Your task to perform on an android device: turn off translation in the chrome app Image 0: 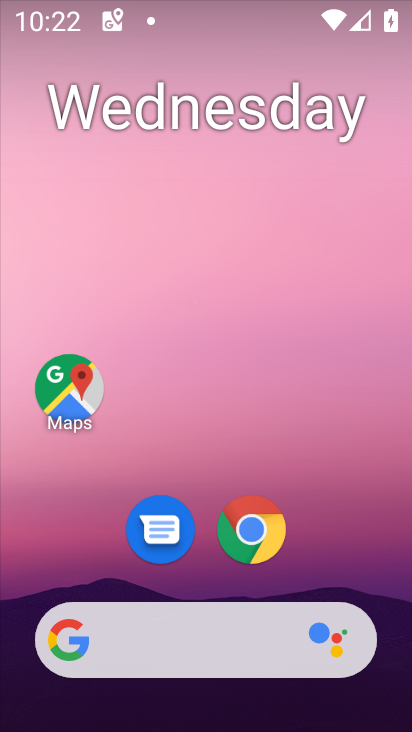
Step 0: click (250, 532)
Your task to perform on an android device: turn off translation in the chrome app Image 1: 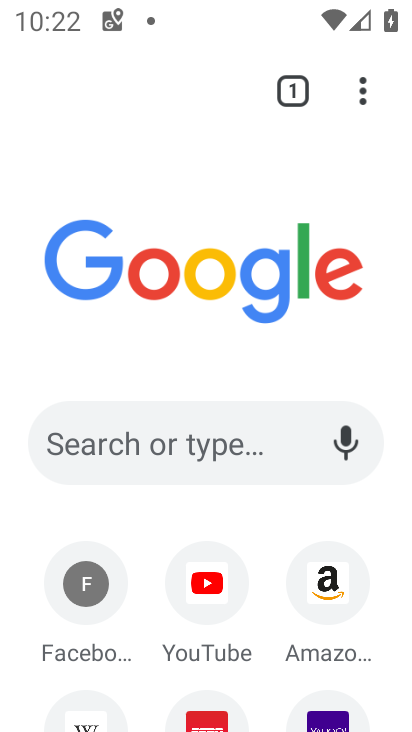
Step 1: click (361, 91)
Your task to perform on an android device: turn off translation in the chrome app Image 2: 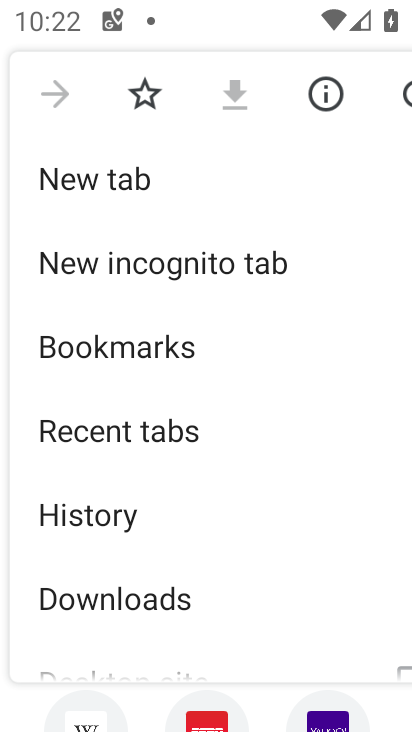
Step 2: drag from (222, 631) to (238, 347)
Your task to perform on an android device: turn off translation in the chrome app Image 3: 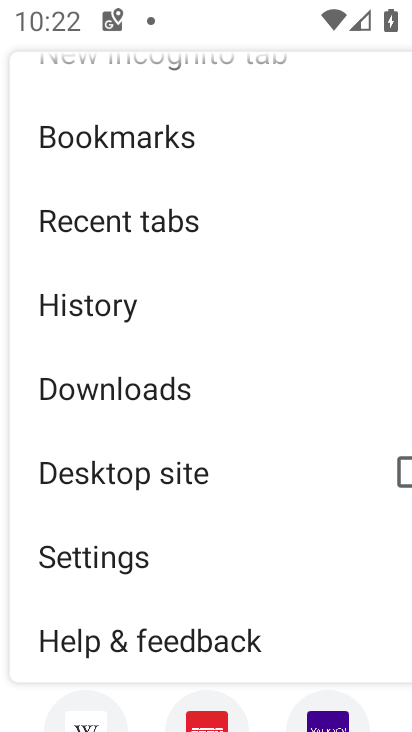
Step 3: click (124, 563)
Your task to perform on an android device: turn off translation in the chrome app Image 4: 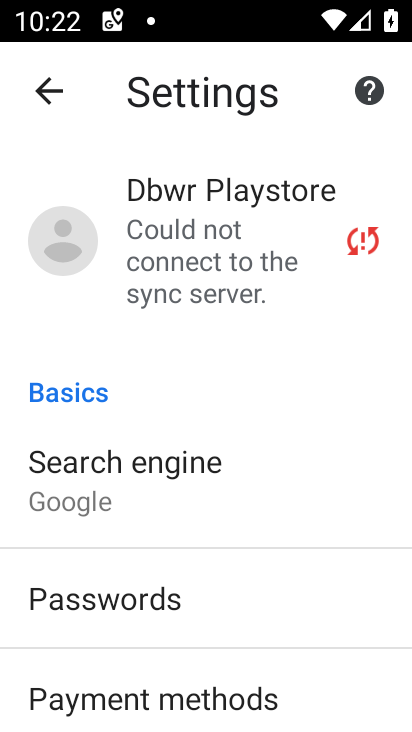
Step 4: drag from (280, 623) to (218, 287)
Your task to perform on an android device: turn off translation in the chrome app Image 5: 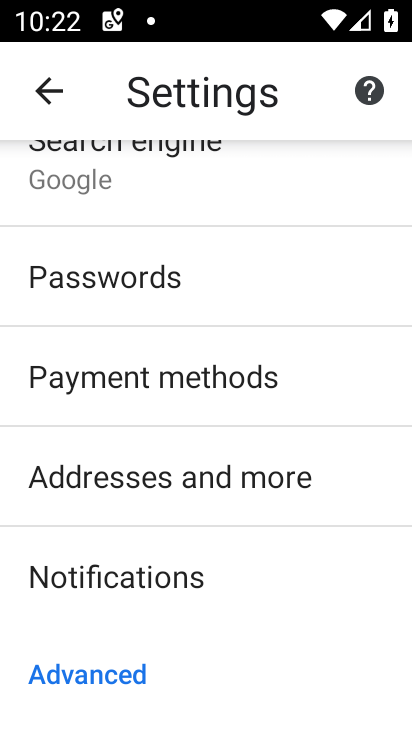
Step 5: drag from (275, 623) to (276, 305)
Your task to perform on an android device: turn off translation in the chrome app Image 6: 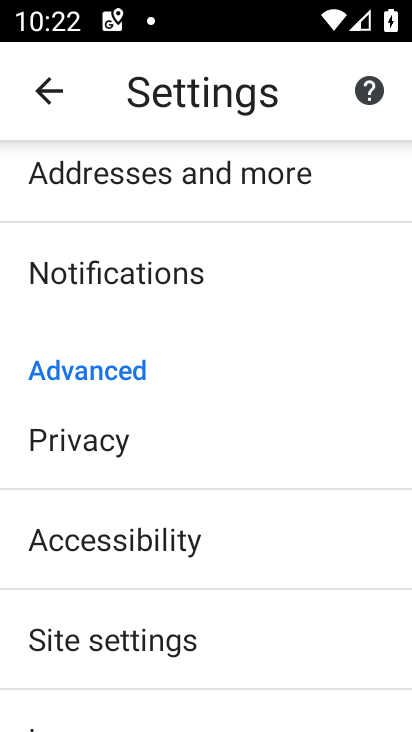
Step 6: drag from (228, 653) to (229, 303)
Your task to perform on an android device: turn off translation in the chrome app Image 7: 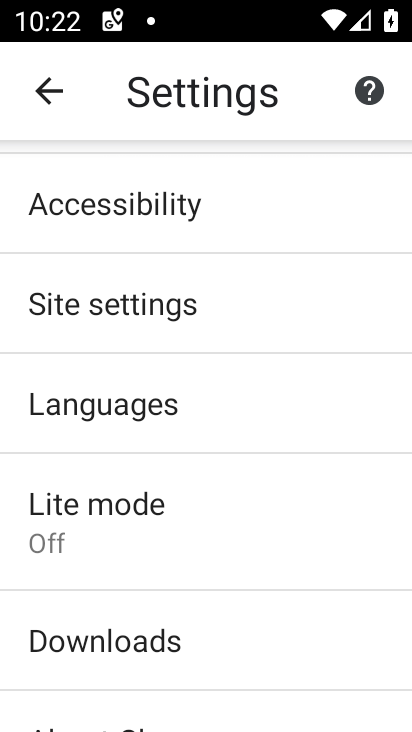
Step 7: click (88, 411)
Your task to perform on an android device: turn off translation in the chrome app Image 8: 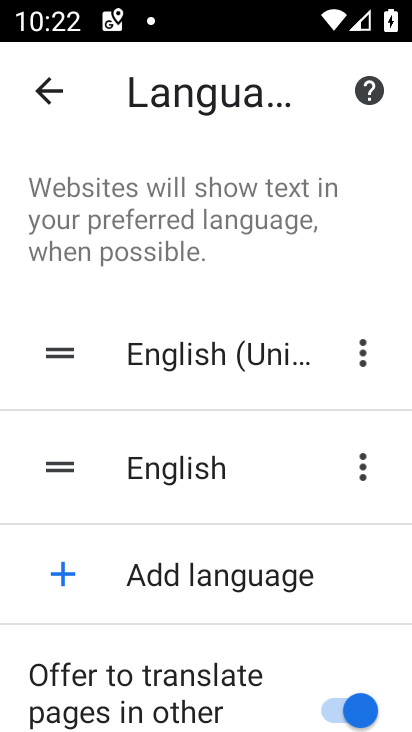
Step 8: drag from (264, 643) to (233, 300)
Your task to perform on an android device: turn off translation in the chrome app Image 9: 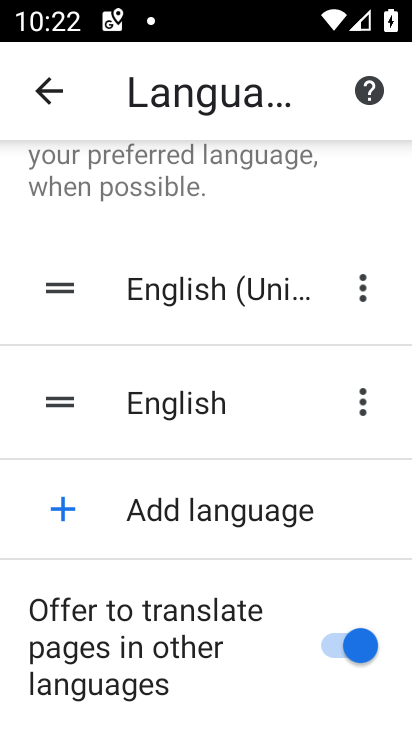
Step 9: click (325, 643)
Your task to perform on an android device: turn off translation in the chrome app Image 10: 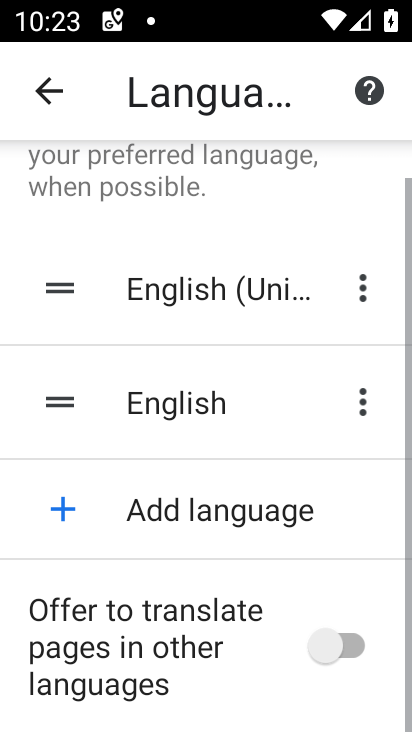
Step 10: task complete